Your task to perform on an android device: Open the stopwatch Image 0: 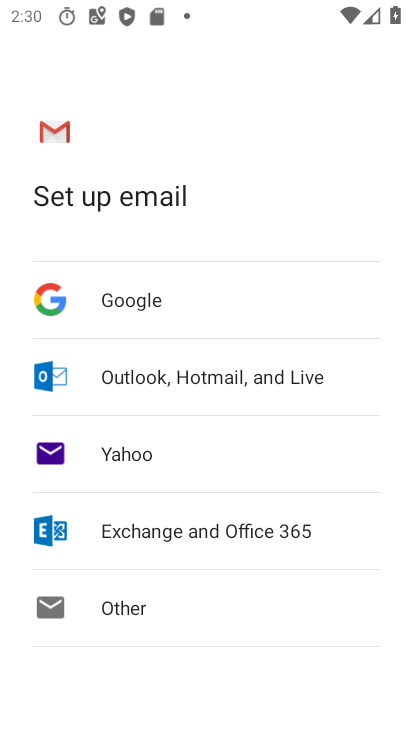
Step 0: press home button
Your task to perform on an android device: Open the stopwatch Image 1: 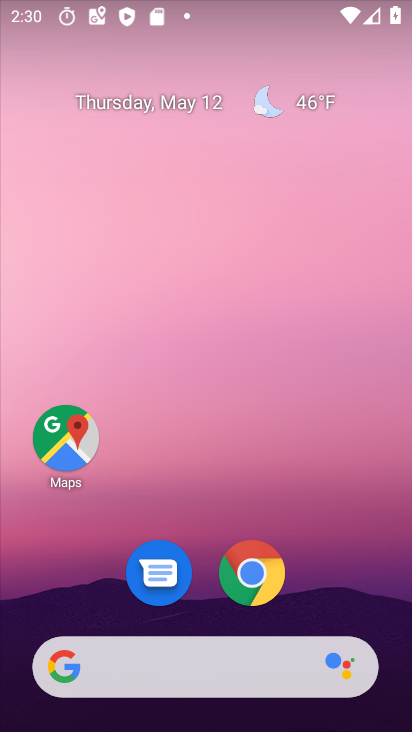
Step 1: drag from (204, 604) to (286, 15)
Your task to perform on an android device: Open the stopwatch Image 2: 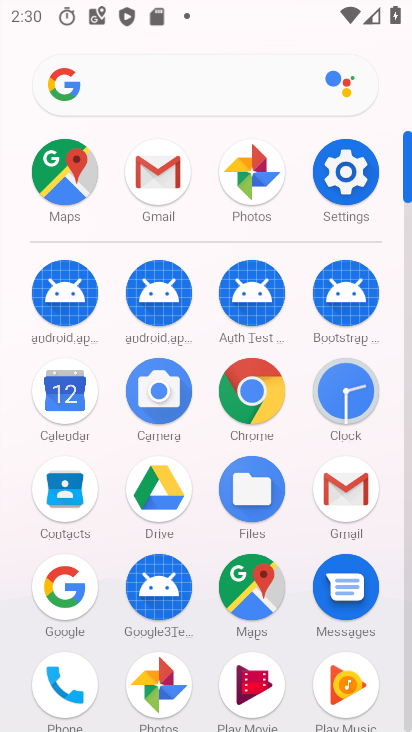
Step 2: click (358, 195)
Your task to perform on an android device: Open the stopwatch Image 3: 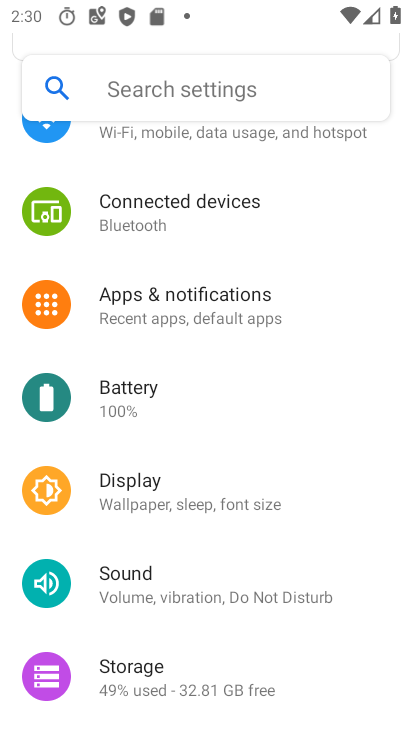
Step 3: drag from (220, 552) to (316, 148)
Your task to perform on an android device: Open the stopwatch Image 4: 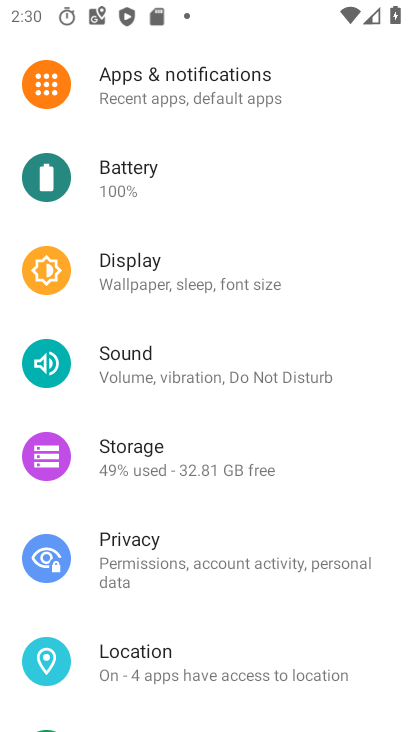
Step 4: drag from (235, 693) to (268, 464)
Your task to perform on an android device: Open the stopwatch Image 5: 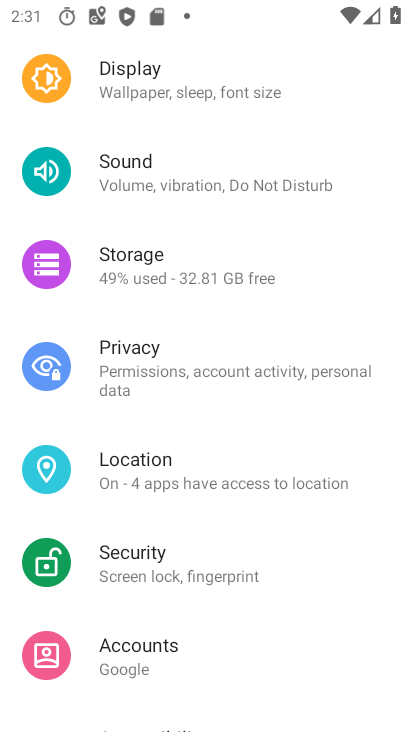
Step 5: press home button
Your task to perform on an android device: Open the stopwatch Image 6: 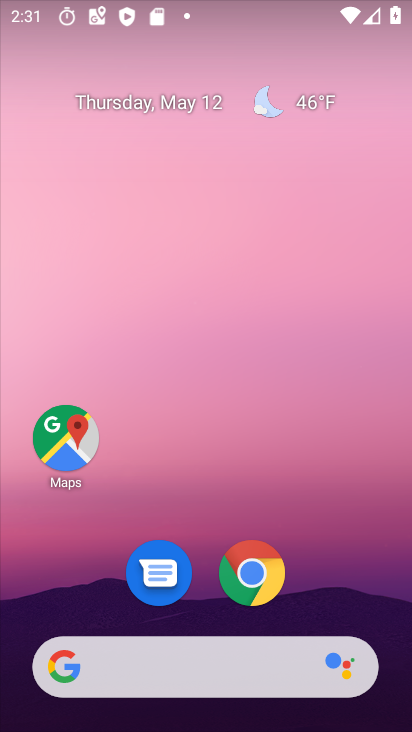
Step 6: drag from (211, 613) to (226, 141)
Your task to perform on an android device: Open the stopwatch Image 7: 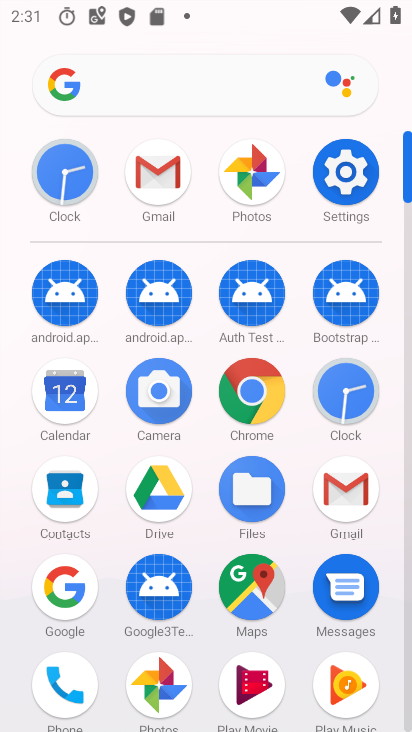
Step 7: click (340, 389)
Your task to perform on an android device: Open the stopwatch Image 8: 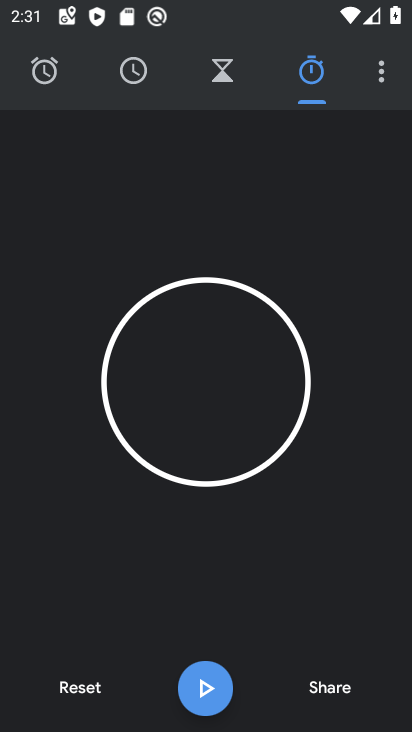
Step 8: task complete